Your task to perform on an android device: Is it going to rain this weekend? Image 0: 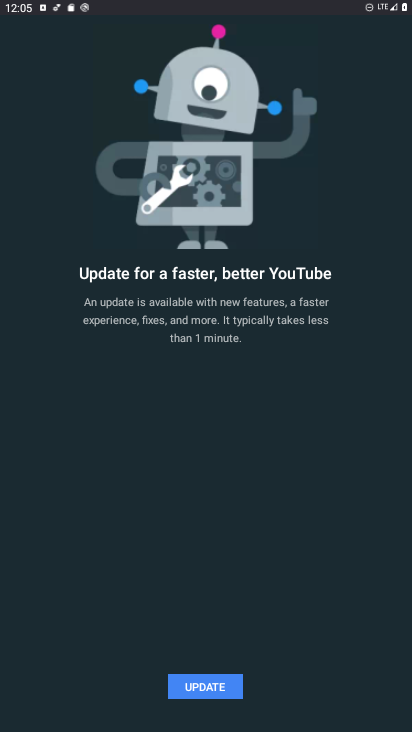
Step 0: press home button
Your task to perform on an android device: Is it going to rain this weekend? Image 1: 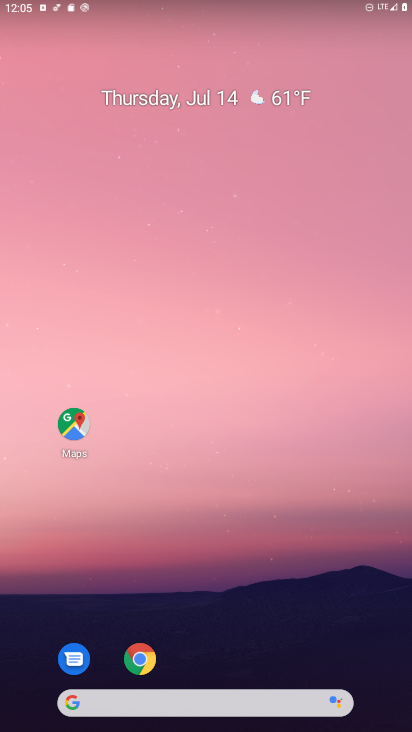
Step 1: click (280, 91)
Your task to perform on an android device: Is it going to rain this weekend? Image 2: 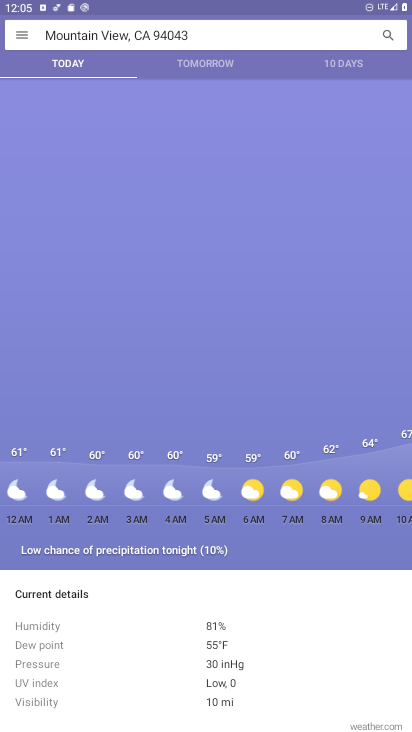
Step 2: click (331, 72)
Your task to perform on an android device: Is it going to rain this weekend? Image 3: 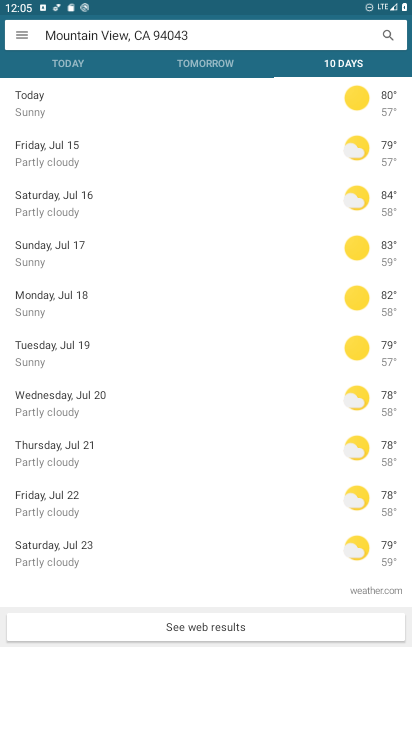
Step 3: task complete